Your task to perform on an android device: turn on showing notifications on the lock screen Image 0: 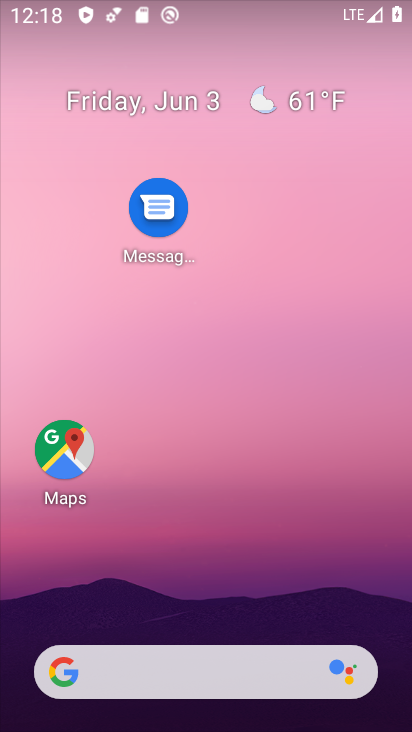
Step 0: drag from (205, 619) to (366, 10)
Your task to perform on an android device: turn on showing notifications on the lock screen Image 1: 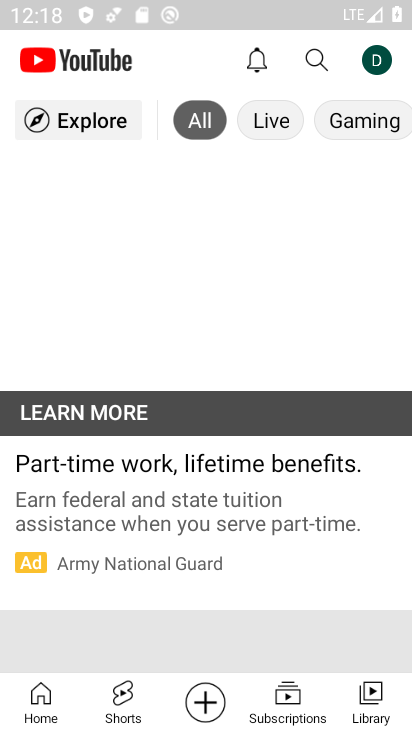
Step 1: press back button
Your task to perform on an android device: turn on showing notifications on the lock screen Image 2: 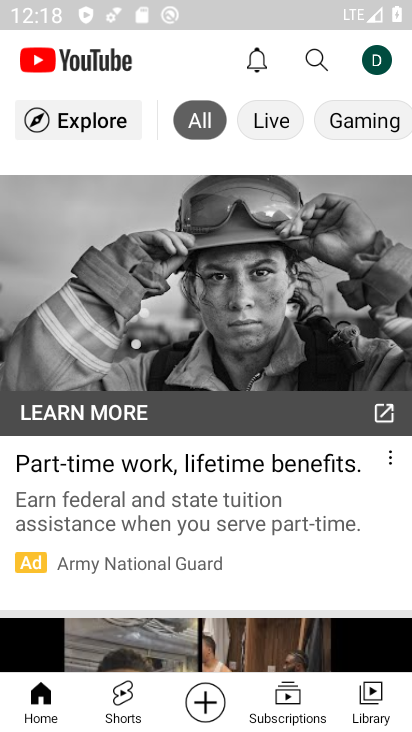
Step 2: press back button
Your task to perform on an android device: turn on showing notifications on the lock screen Image 3: 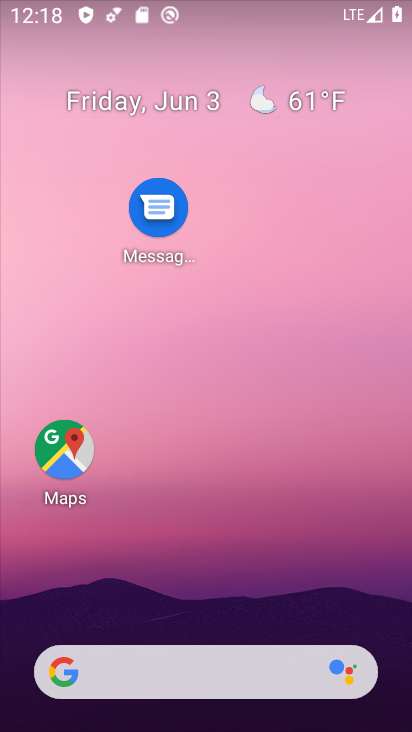
Step 3: drag from (160, 652) to (75, 80)
Your task to perform on an android device: turn on showing notifications on the lock screen Image 4: 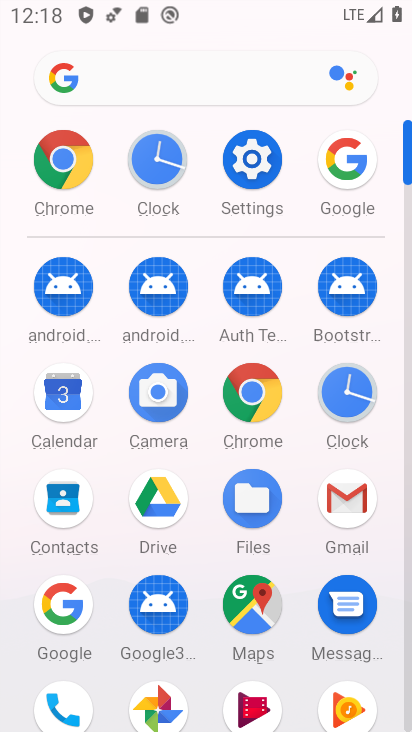
Step 4: click (263, 129)
Your task to perform on an android device: turn on showing notifications on the lock screen Image 5: 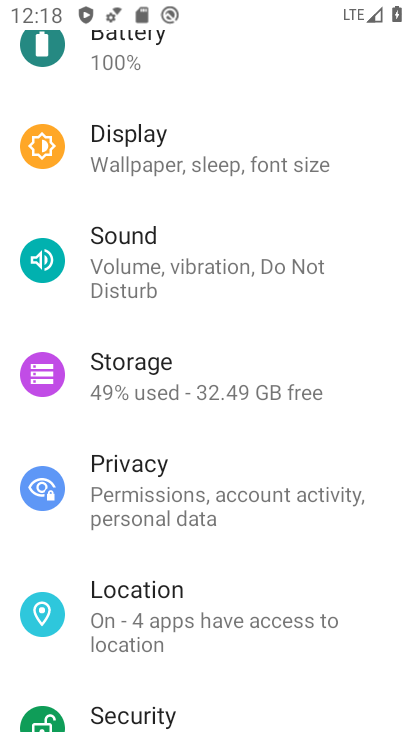
Step 5: drag from (134, 287) to (154, 581)
Your task to perform on an android device: turn on showing notifications on the lock screen Image 6: 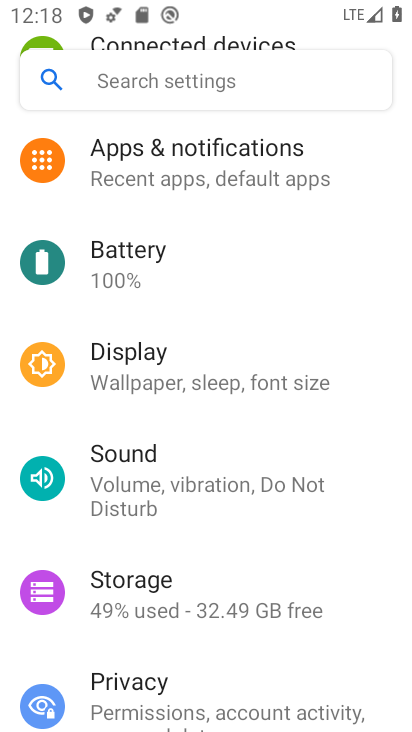
Step 6: click (176, 177)
Your task to perform on an android device: turn on showing notifications on the lock screen Image 7: 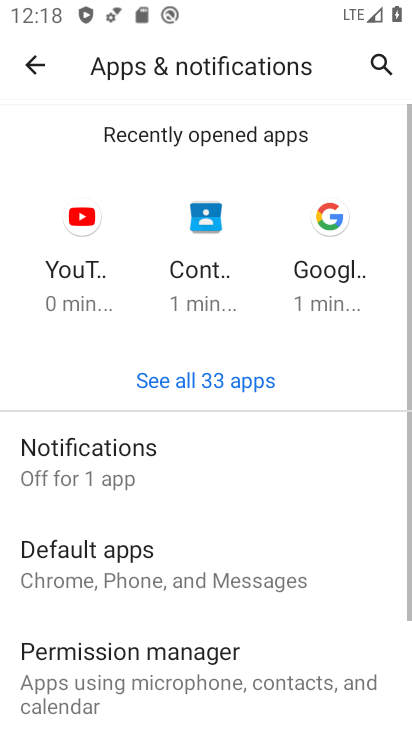
Step 7: click (156, 486)
Your task to perform on an android device: turn on showing notifications on the lock screen Image 8: 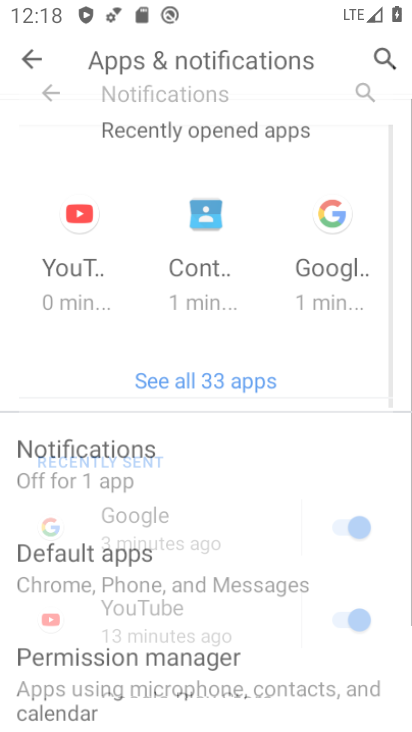
Step 8: drag from (173, 589) to (99, 13)
Your task to perform on an android device: turn on showing notifications on the lock screen Image 9: 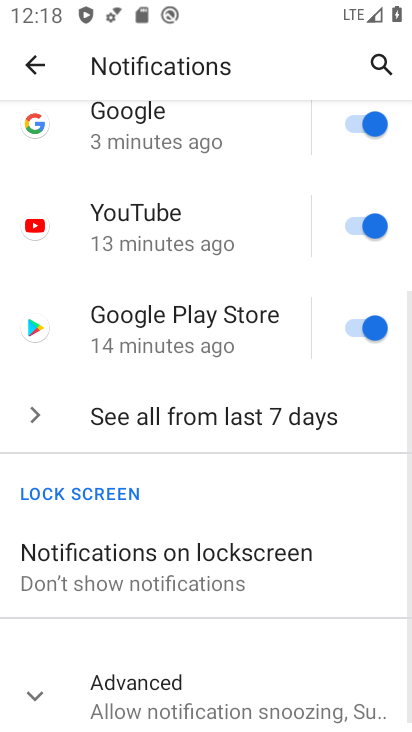
Step 9: click (194, 539)
Your task to perform on an android device: turn on showing notifications on the lock screen Image 10: 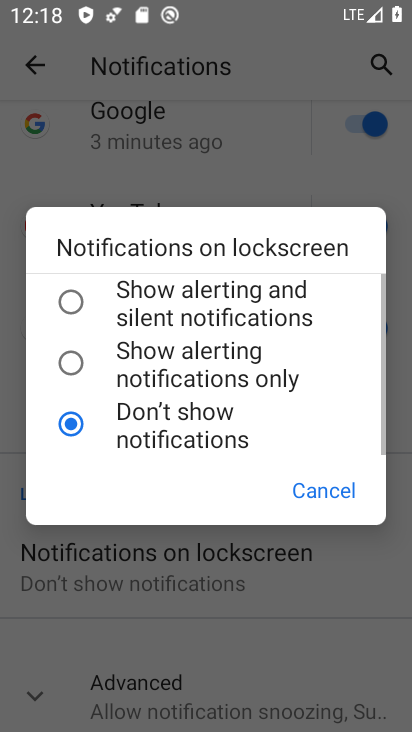
Step 10: click (203, 319)
Your task to perform on an android device: turn on showing notifications on the lock screen Image 11: 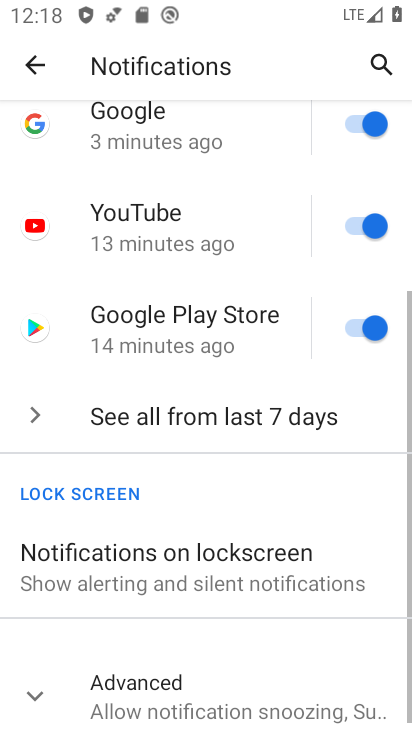
Step 11: task complete